Your task to perform on an android device: What's US dollar exchange rate against the British Pound? Image 0: 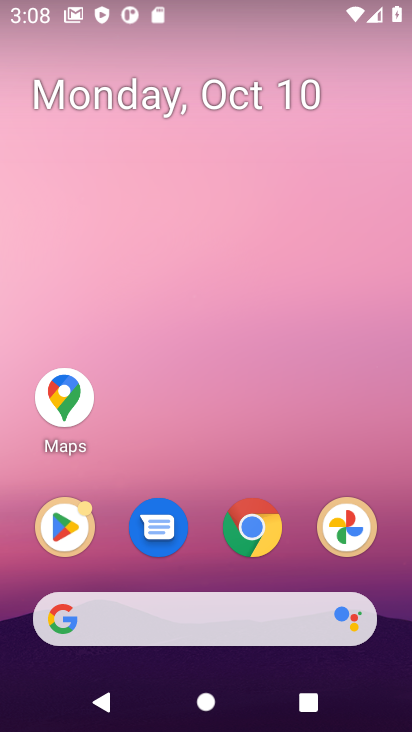
Step 0: drag from (389, 584) to (391, 191)
Your task to perform on an android device: What's US dollar exchange rate against the British Pound? Image 1: 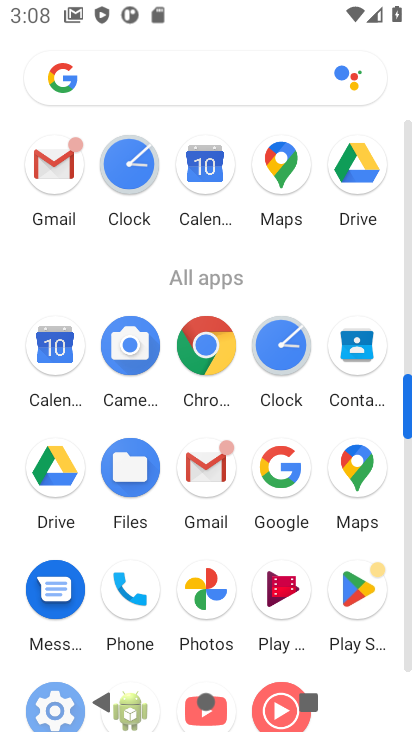
Step 1: click (191, 86)
Your task to perform on an android device: What's US dollar exchange rate against the British Pound? Image 2: 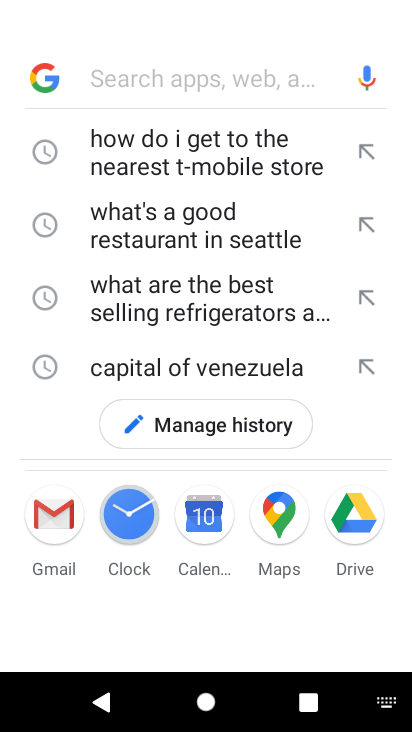
Step 2: type "US dollar exchange rate against the British Pound"
Your task to perform on an android device: What's US dollar exchange rate against the British Pound? Image 3: 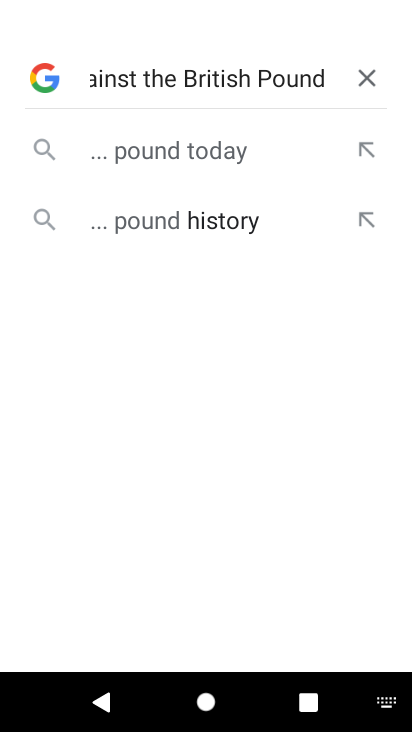
Step 3: press enter
Your task to perform on an android device: What's US dollar exchange rate against the British Pound? Image 4: 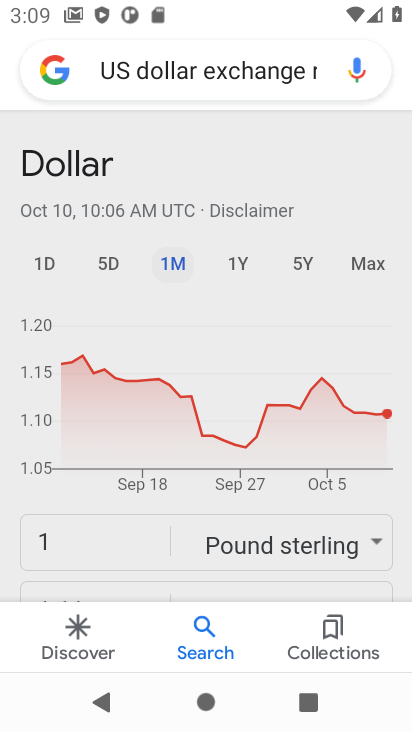
Step 4: task complete